Your task to perform on an android device: Go to Wikipedia Image 0: 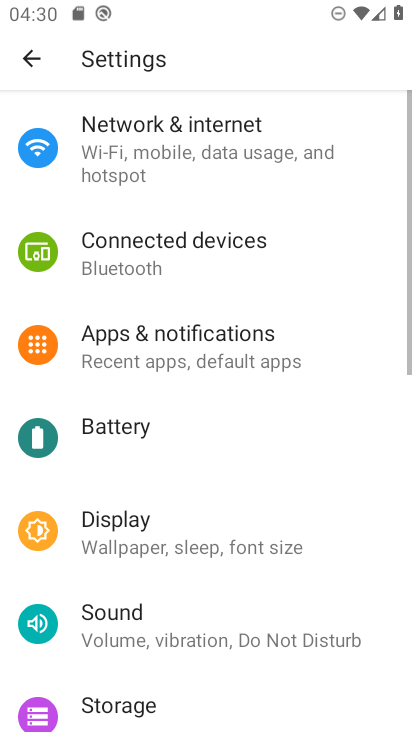
Step 0: drag from (273, 535) to (351, 75)
Your task to perform on an android device: Go to Wikipedia Image 1: 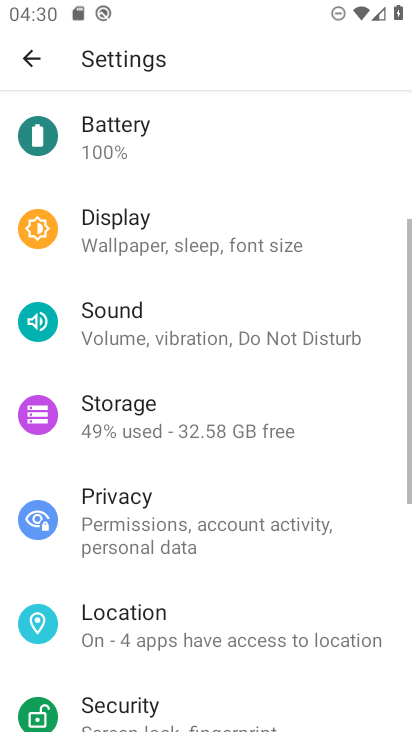
Step 1: press home button
Your task to perform on an android device: Go to Wikipedia Image 2: 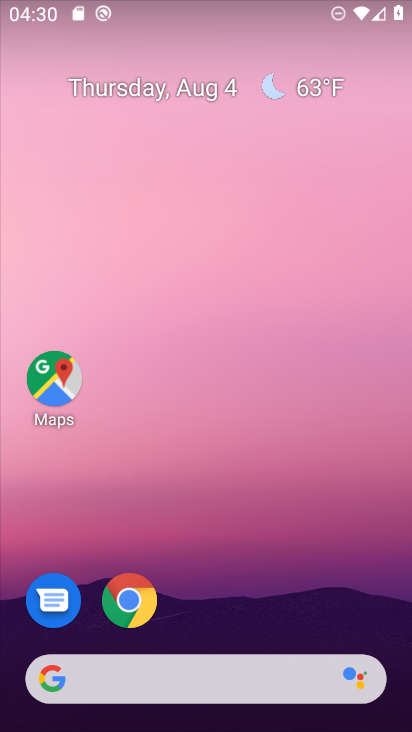
Step 2: drag from (280, 564) to (350, 101)
Your task to perform on an android device: Go to Wikipedia Image 3: 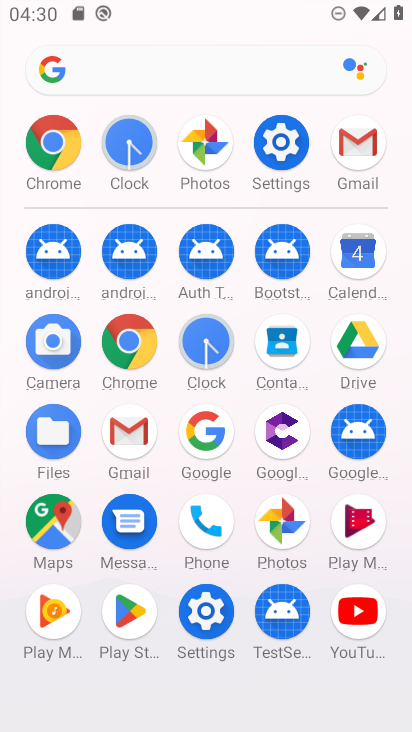
Step 3: click (124, 332)
Your task to perform on an android device: Go to Wikipedia Image 4: 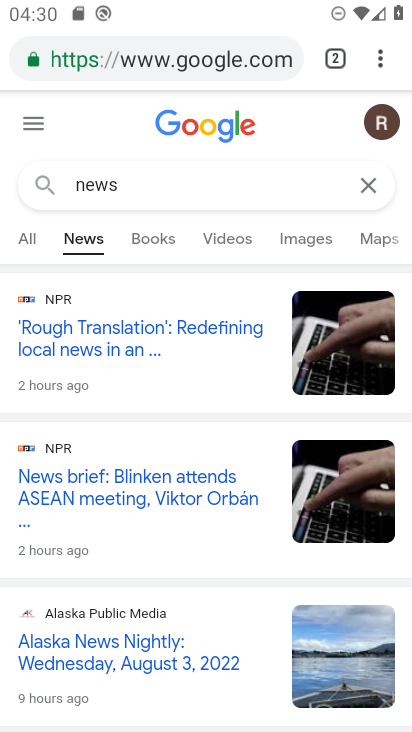
Step 4: click (170, 56)
Your task to perform on an android device: Go to Wikipedia Image 5: 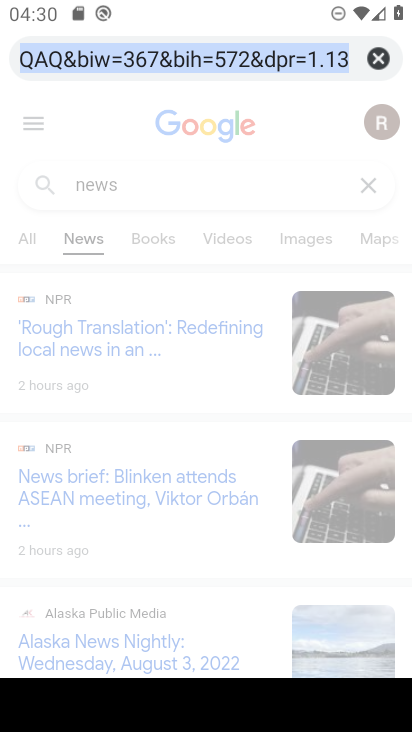
Step 5: click (379, 55)
Your task to perform on an android device: Go to Wikipedia Image 6: 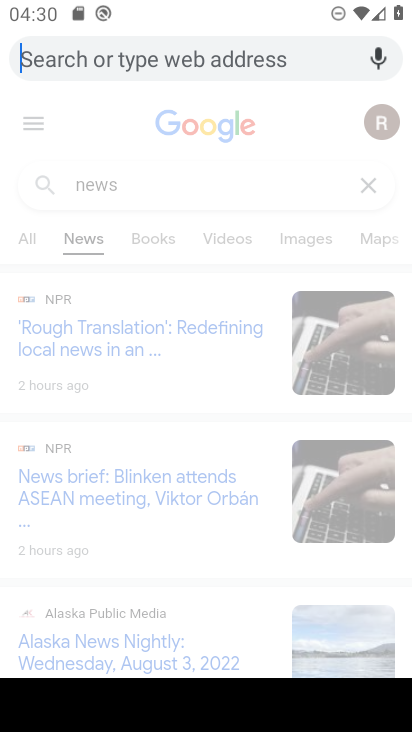
Step 6: type "wikipedia"
Your task to perform on an android device: Go to Wikipedia Image 7: 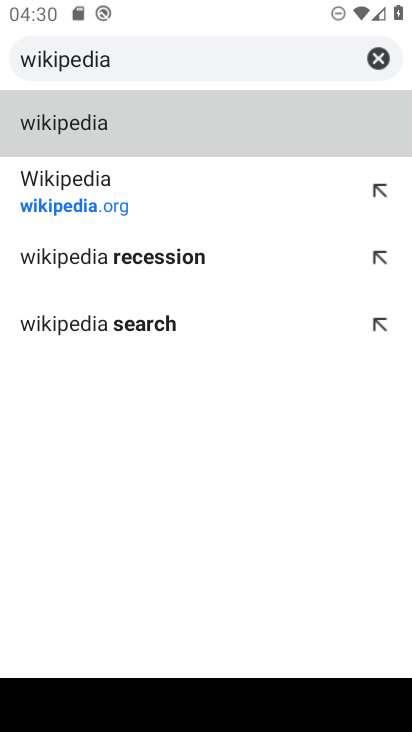
Step 7: click (108, 209)
Your task to perform on an android device: Go to Wikipedia Image 8: 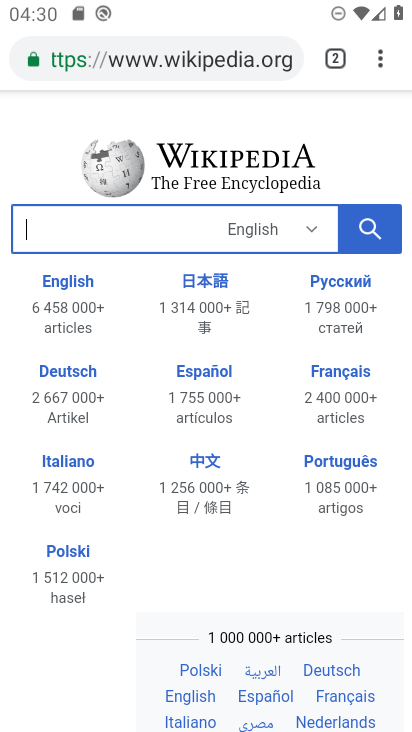
Step 8: task complete